Your task to perform on an android device: Open accessibility settings Image 0: 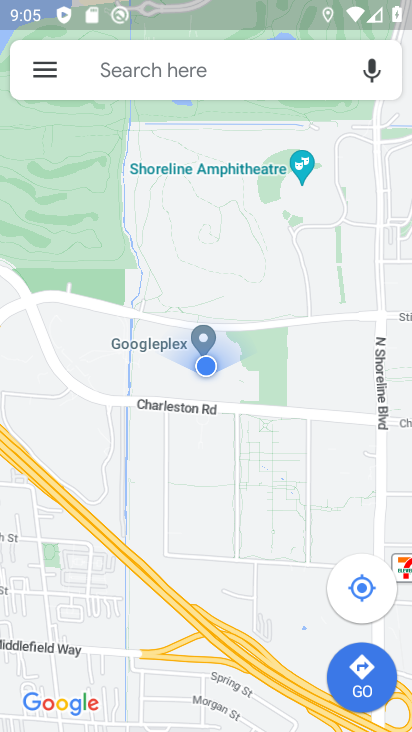
Step 0: task complete